Your task to perform on an android device: Open calendar and show me the fourth week of next month Image 0: 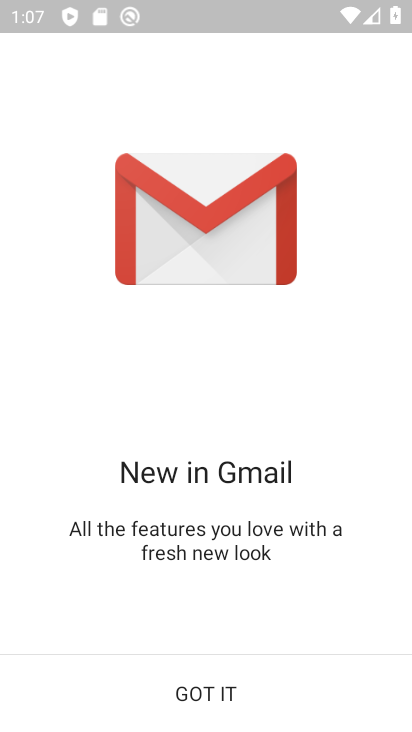
Step 0: click (234, 704)
Your task to perform on an android device: Open calendar and show me the fourth week of next month Image 1: 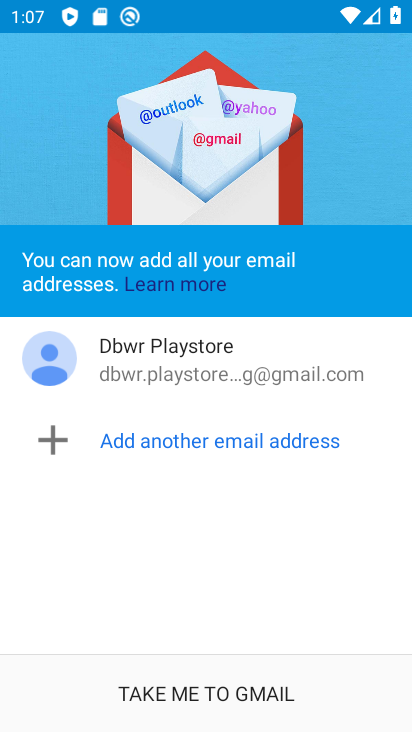
Step 1: press back button
Your task to perform on an android device: Open calendar and show me the fourth week of next month Image 2: 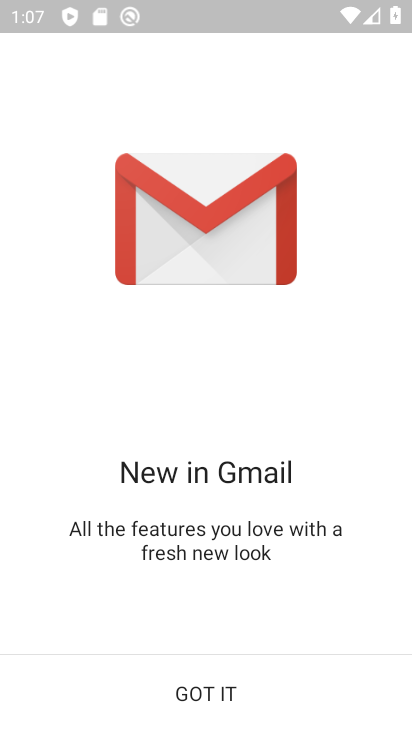
Step 2: press home button
Your task to perform on an android device: Open calendar and show me the fourth week of next month Image 3: 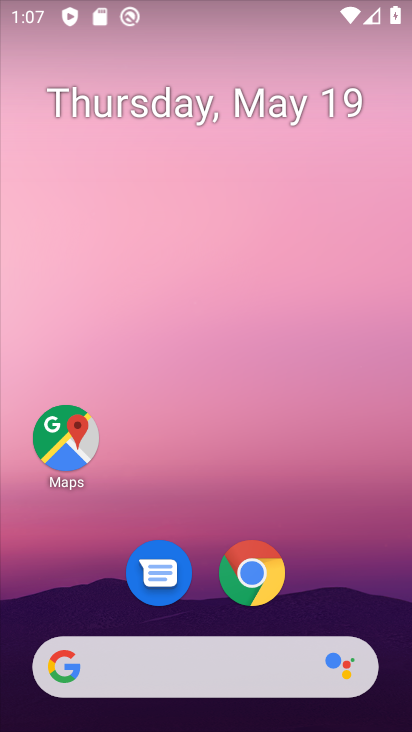
Step 3: drag from (319, 549) to (275, 42)
Your task to perform on an android device: Open calendar and show me the fourth week of next month Image 4: 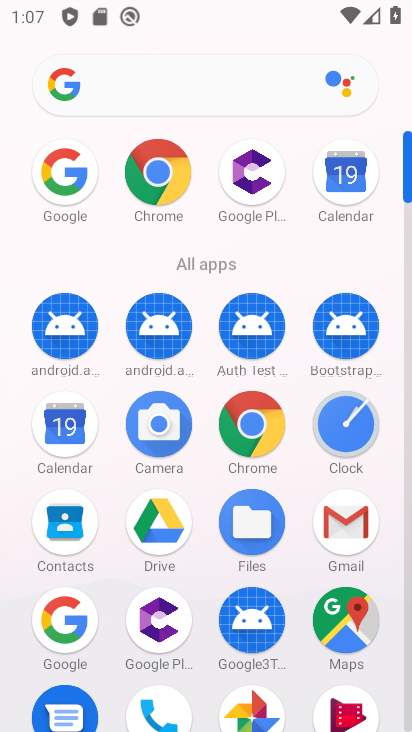
Step 4: drag from (2, 558) to (12, 251)
Your task to perform on an android device: Open calendar and show me the fourth week of next month Image 5: 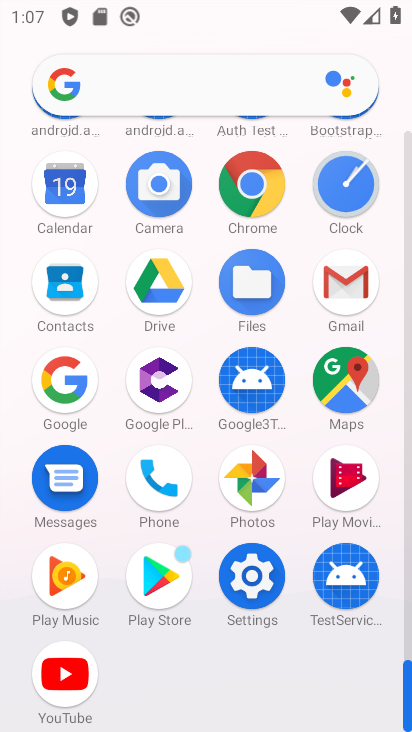
Step 5: click (60, 185)
Your task to perform on an android device: Open calendar and show me the fourth week of next month Image 6: 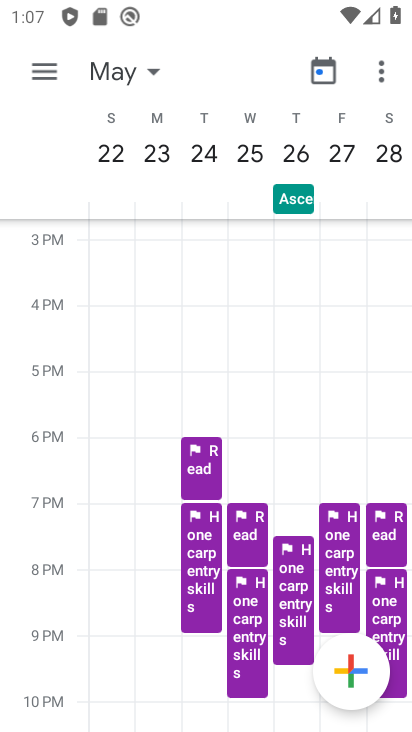
Step 6: click (126, 69)
Your task to perform on an android device: Open calendar and show me the fourth week of next month Image 7: 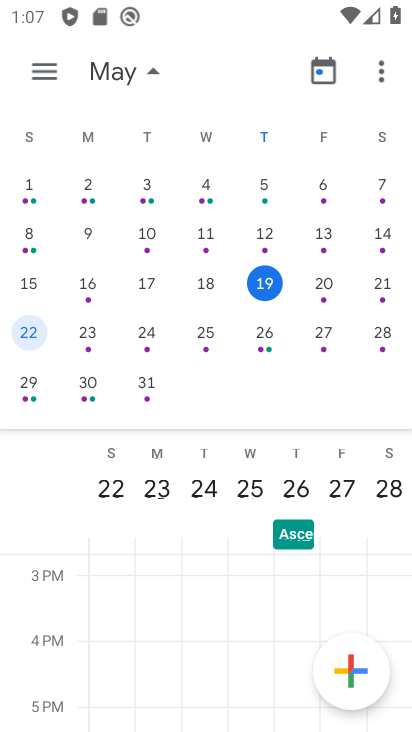
Step 7: drag from (369, 240) to (6, 214)
Your task to perform on an android device: Open calendar and show me the fourth week of next month Image 8: 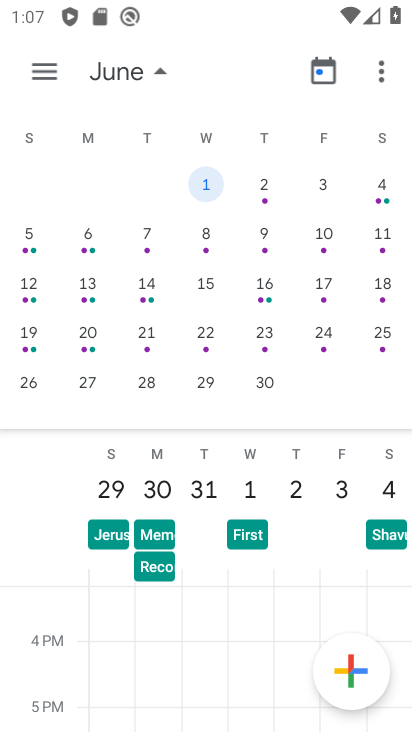
Step 8: click (34, 332)
Your task to perform on an android device: Open calendar and show me the fourth week of next month Image 9: 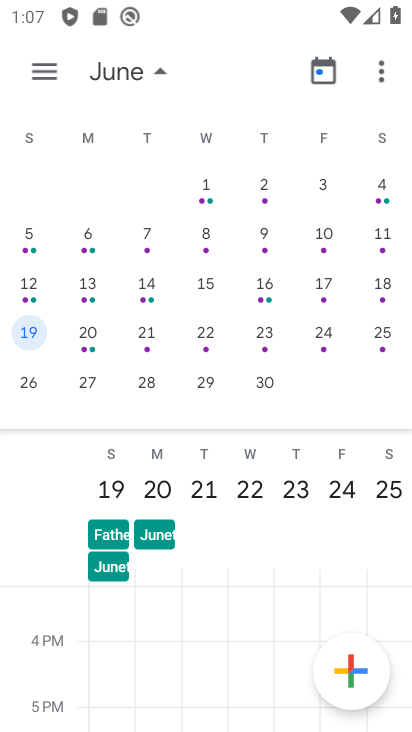
Step 9: click (36, 54)
Your task to perform on an android device: Open calendar and show me the fourth week of next month Image 10: 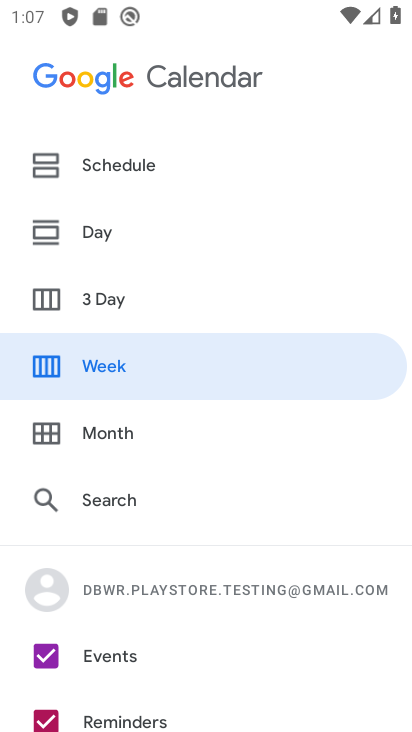
Step 10: click (102, 363)
Your task to perform on an android device: Open calendar and show me the fourth week of next month Image 11: 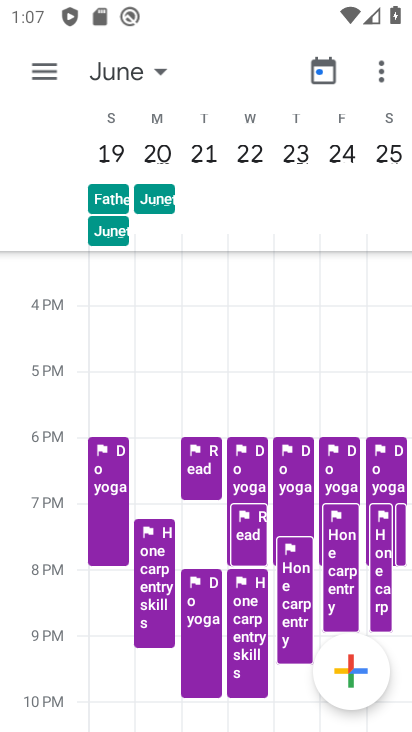
Step 11: task complete